Your task to perform on an android device: change the clock display to analog Image 0: 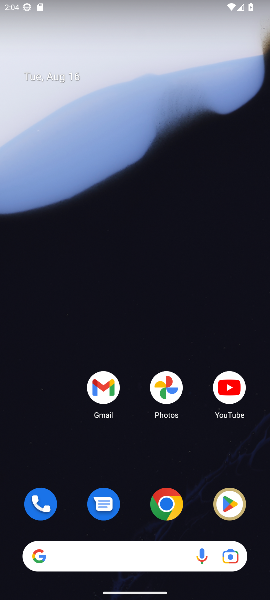
Step 0: drag from (132, 491) to (158, 108)
Your task to perform on an android device: change the clock display to analog Image 1: 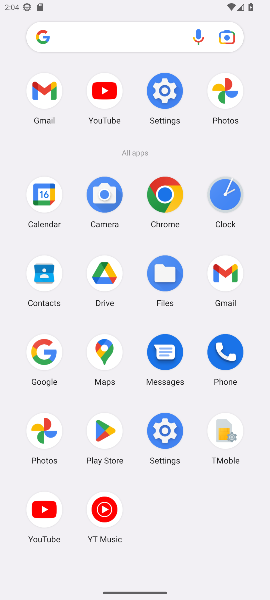
Step 1: click (226, 193)
Your task to perform on an android device: change the clock display to analog Image 2: 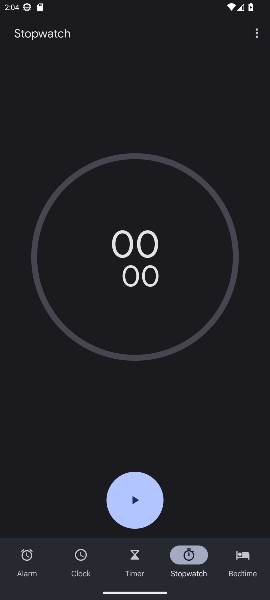
Step 2: click (257, 33)
Your task to perform on an android device: change the clock display to analog Image 3: 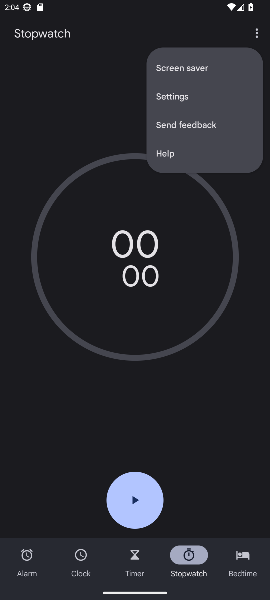
Step 3: click (184, 95)
Your task to perform on an android device: change the clock display to analog Image 4: 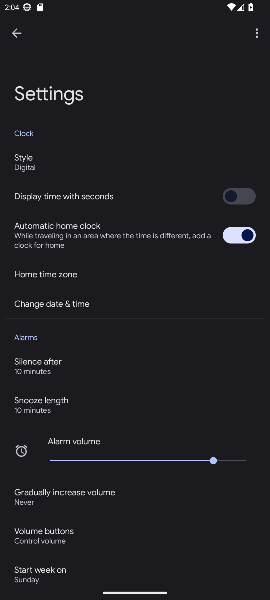
Step 4: click (25, 162)
Your task to perform on an android device: change the clock display to analog Image 5: 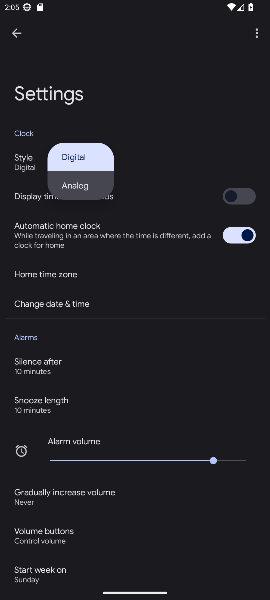
Step 5: click (71, 187)
Your task to perform on an android device: change the clock display to analog Image 6: 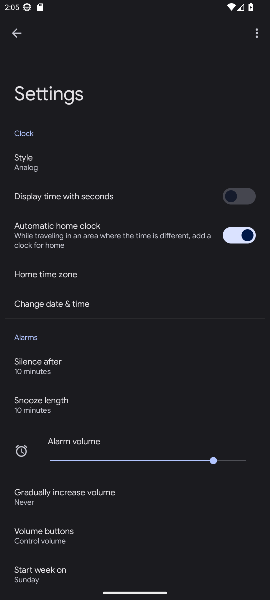
Step 6: task complete